Your task to perform on an android device: check the backup settings in the google photos Image 0: 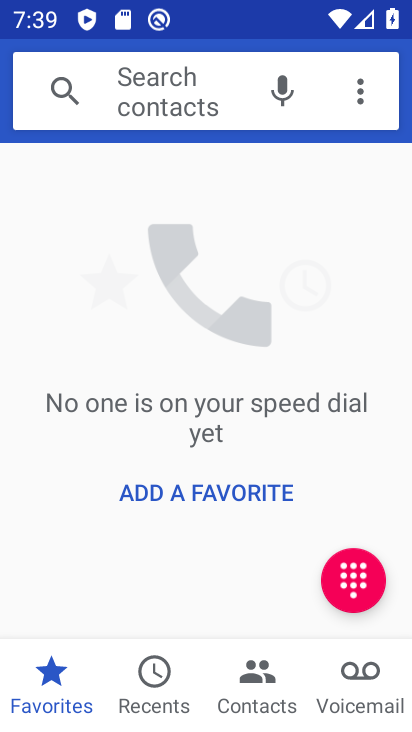
Step 0: press back button
Your task to perform on an android device: check the backup settings in the google photos Image 1: 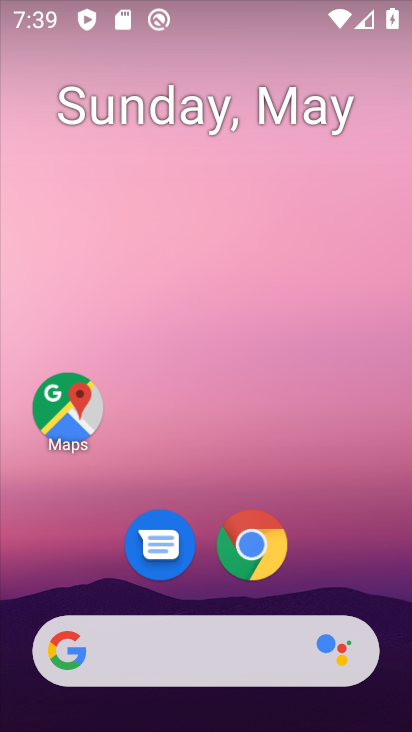
Step 1: drag from (365, 558) to (341, 58)
Your task to perform on an android device: check the backup settings in the google photos Image 2: 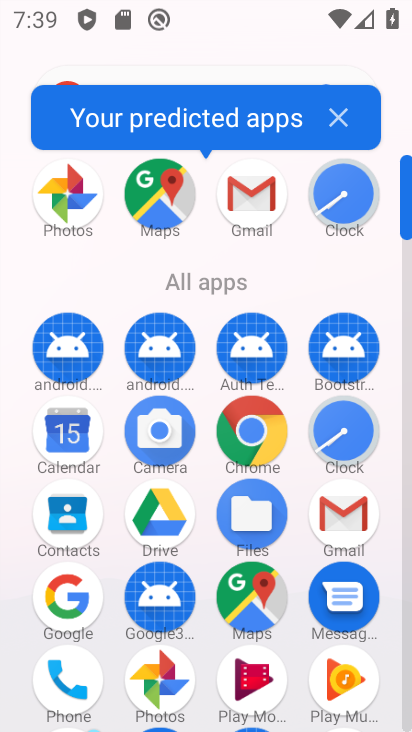
Step 2: drag from (387, 548) to (399, 246)
Your task to perform on an android device: check the backup settings in the google photos Image 3: 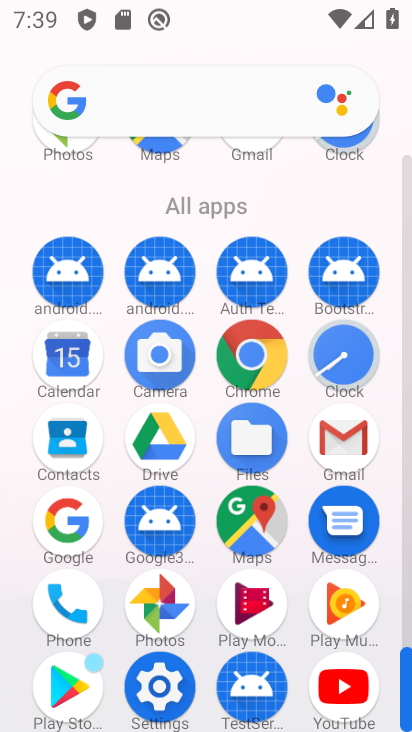
Step 3: click (163, 607)
Your task to perform on an android device: check the backup settings in the google photos Image 4: 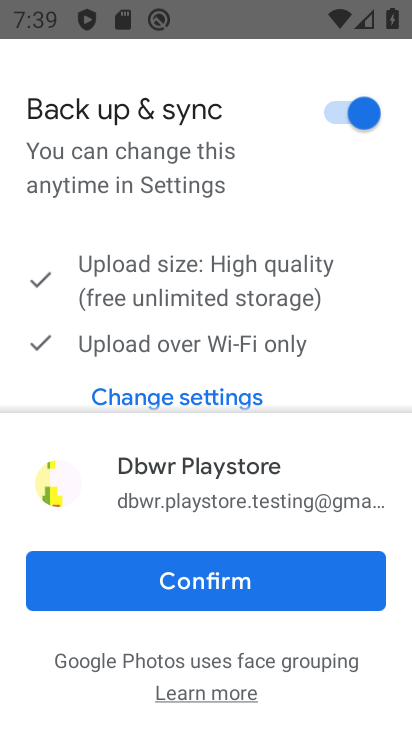
Step 4: click (267, 588)
Your task to perform on an android device: check the backup settings in the google photos Image 5: 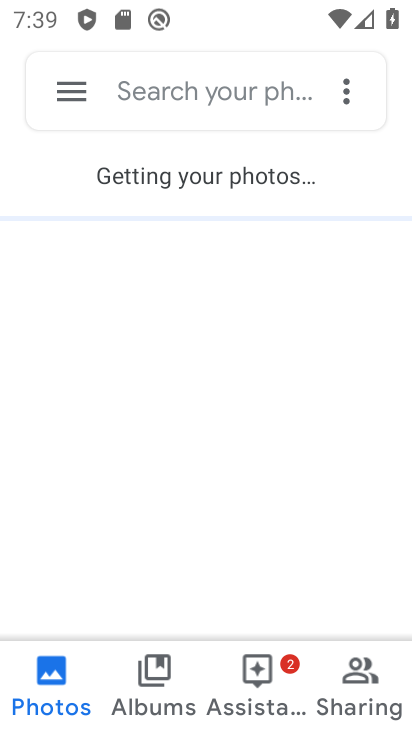
Step 5: click (65, 92)
Your task to perform on an android device: check the backup settings in the google photos Image 6: 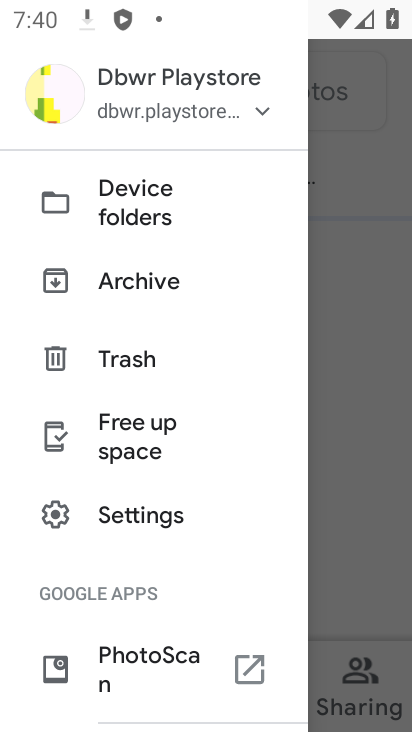
Step 6: click (139, 510)
Your task to perform on an android device: check the backup settings in the google photos Image 7: 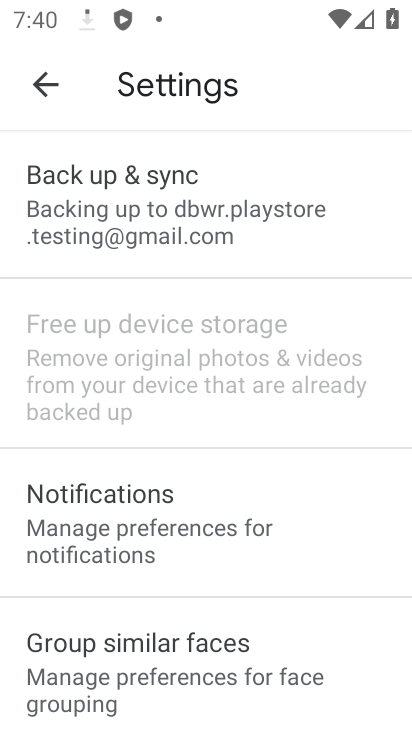
Step 7: click (125, 184)
Your task to perform on an android device: check the backup settings in the google photos Image 8: 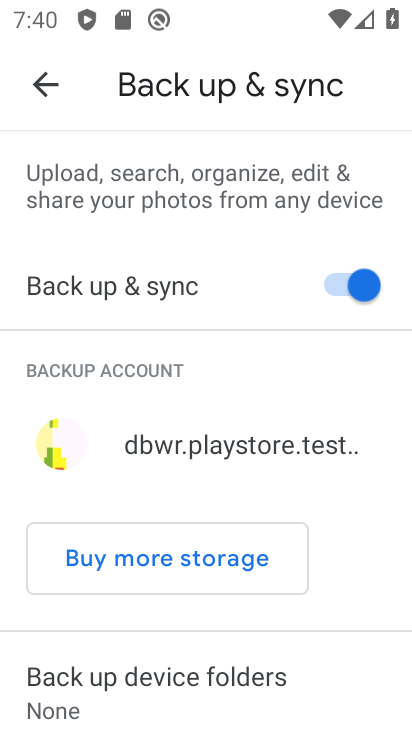
Step 8: task complete